Your task to perform on an android device: Search for "corsair k70" on walmart.com, select the first entry, and add it to the cart. Image 0: 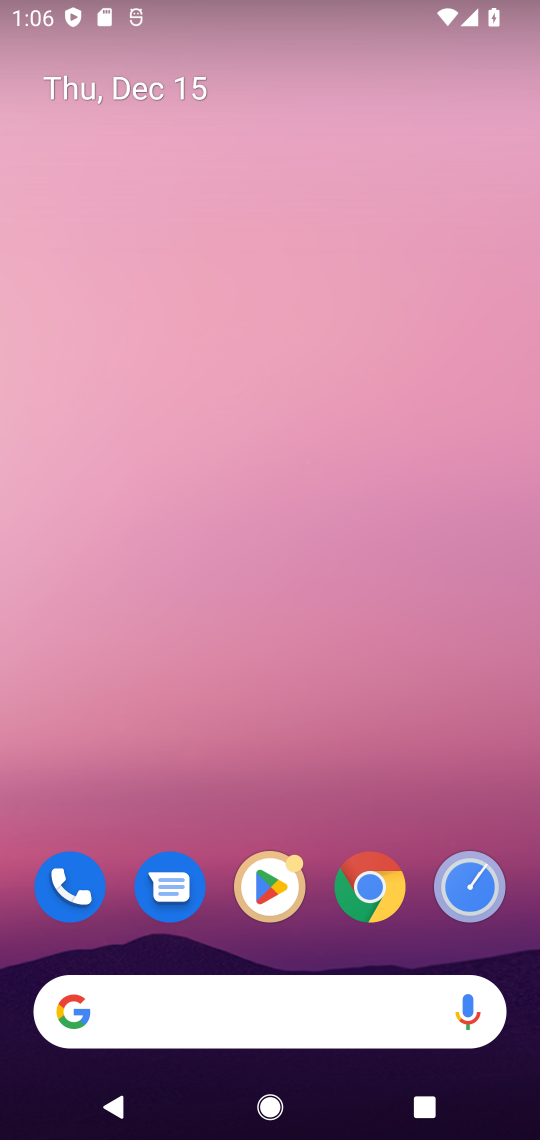
Step 0: click (359, 898)
Your task to perform on an android device: Search for "corsair k70" on walmart.com, select the first entry, and add it to the cart. Image 1: 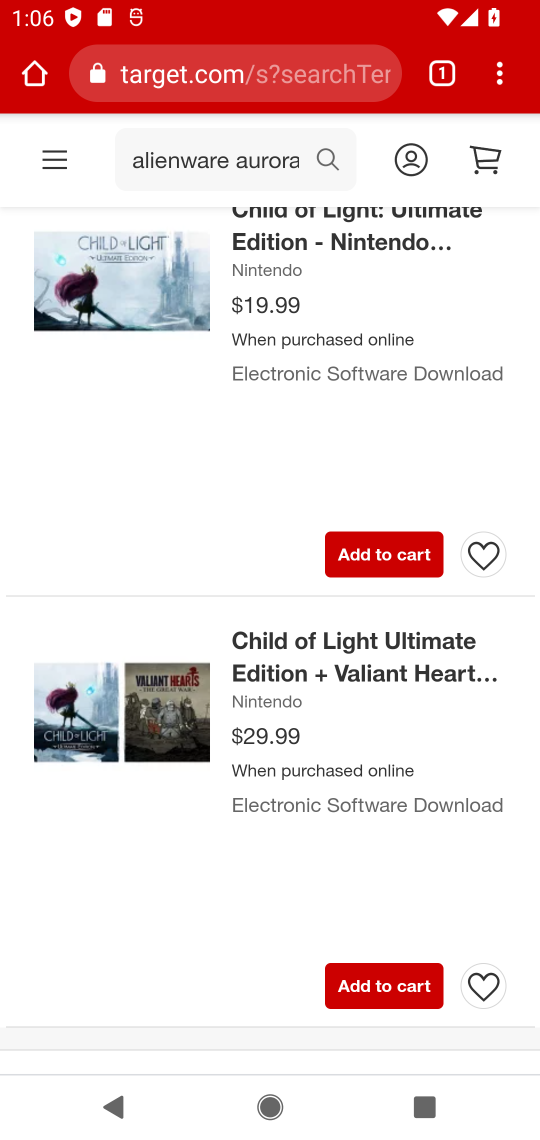
Step 1: click (248, 80)
Your task to perform on an android device: Search for "corsair k70" on walmart.com, select the first entry, and add it to the cart. Image 2: 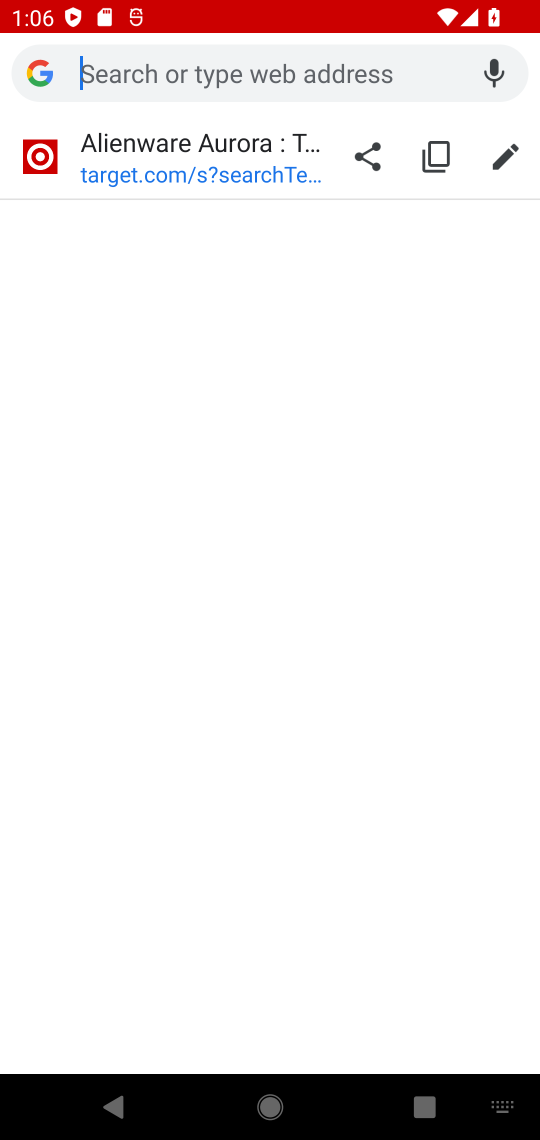
Step 2: type "walmart.com"
Your task to perform on an android device: Search for "corsair k70" on walmart.com, select the first entry, and add it to the cart. Image 3: 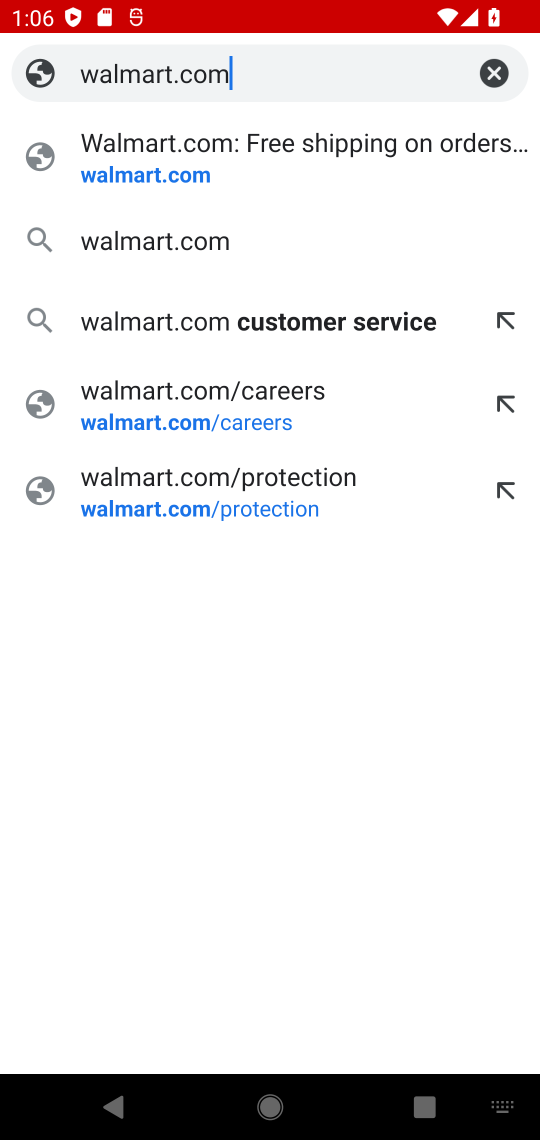
Step 3: click (146, 178)
Your task to perform on an android device: Search for "corsair k70" on walmart.com, select the first entry, and add it to the cart. Image 4: 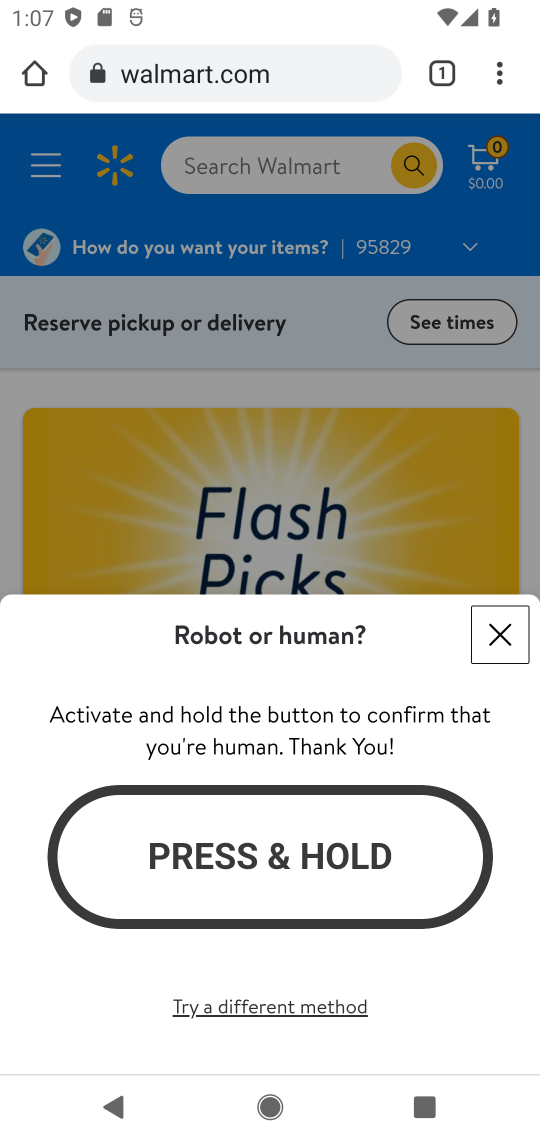
Step 4: click (496, 641)
Your task to perform on an android device: Search for "corsair k70" on walmart.com, select the first entry, and add it to the cart. Image 5: 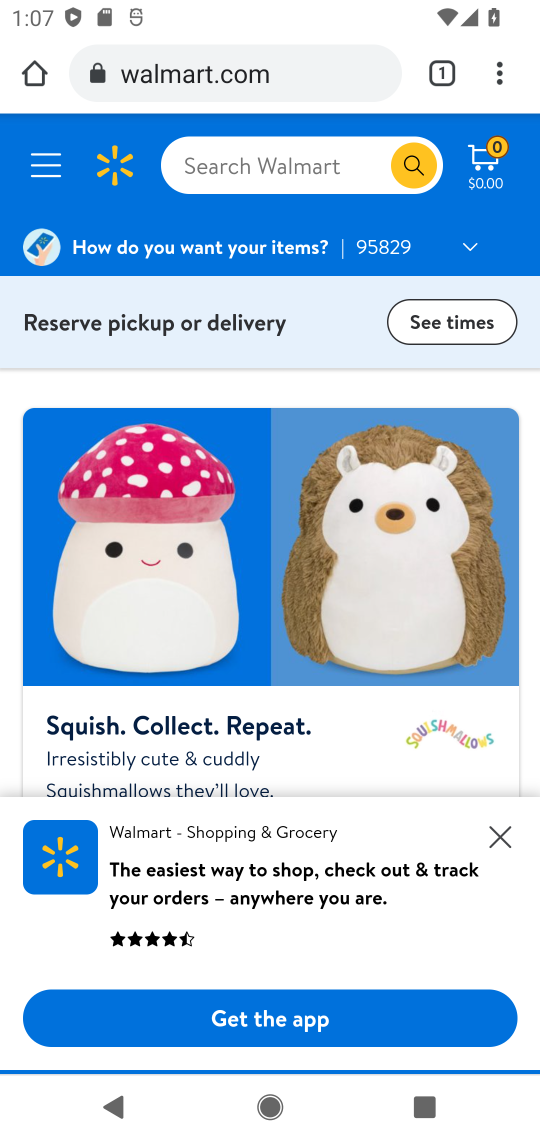
Step 5: click (251, 175)
Your task to perform on an android device: Search for "corsair k70" on walmart.com, select the first entry, and add it to the cart. Image 6: 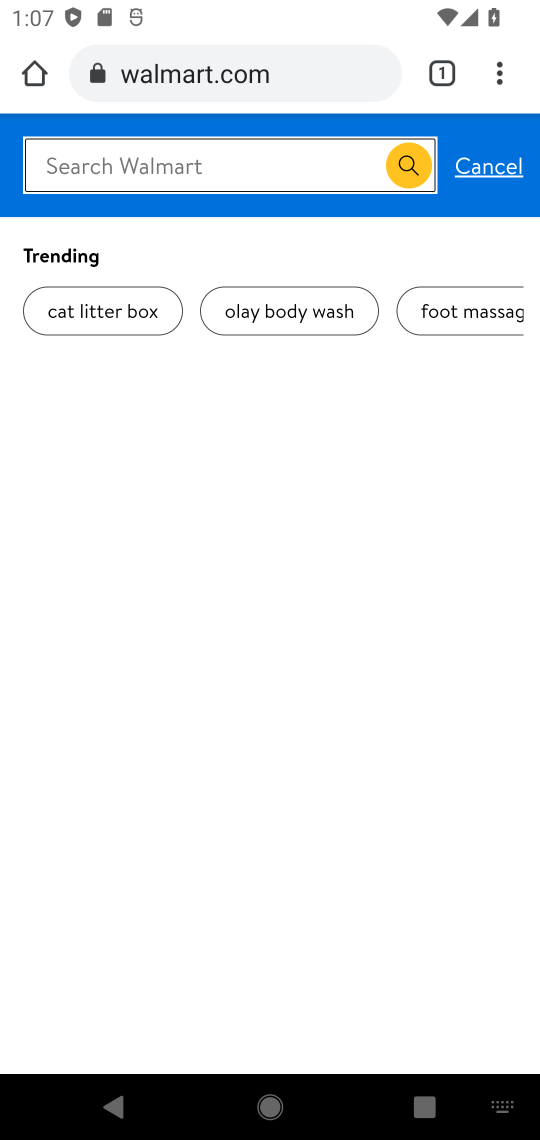
Step 6: type "corsair k70"
Your task to perform on an android device: Search for "corsair k70" on walmart.com, select the first entry, and add it to the cart. Image 7: 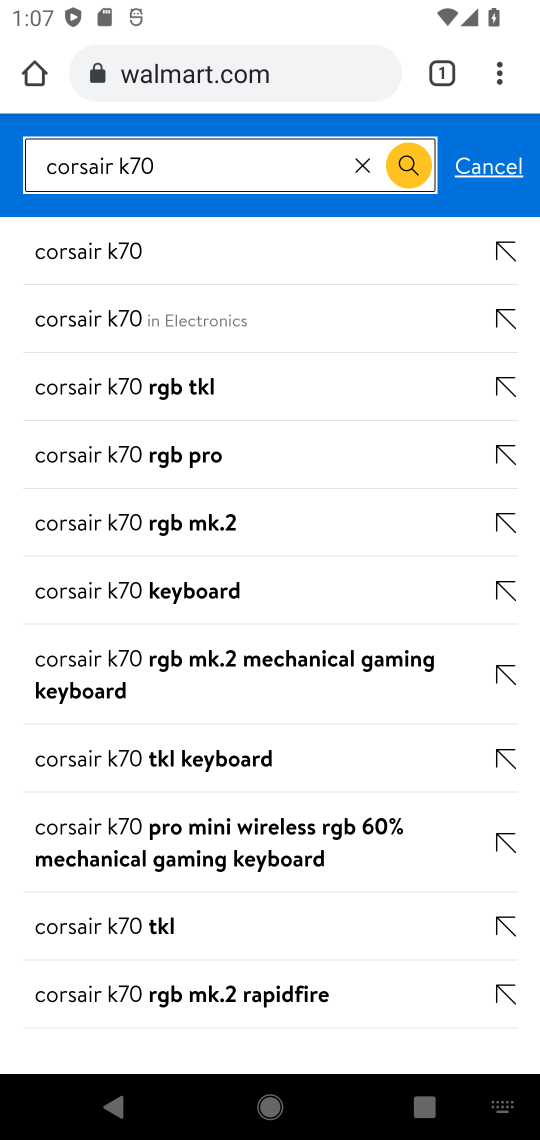
Step 7: click (71, 262)
Your task to perform on an android device: Search for "corsair k70" on walmart.com, select the first entry, and add it to the cart. Image 8: 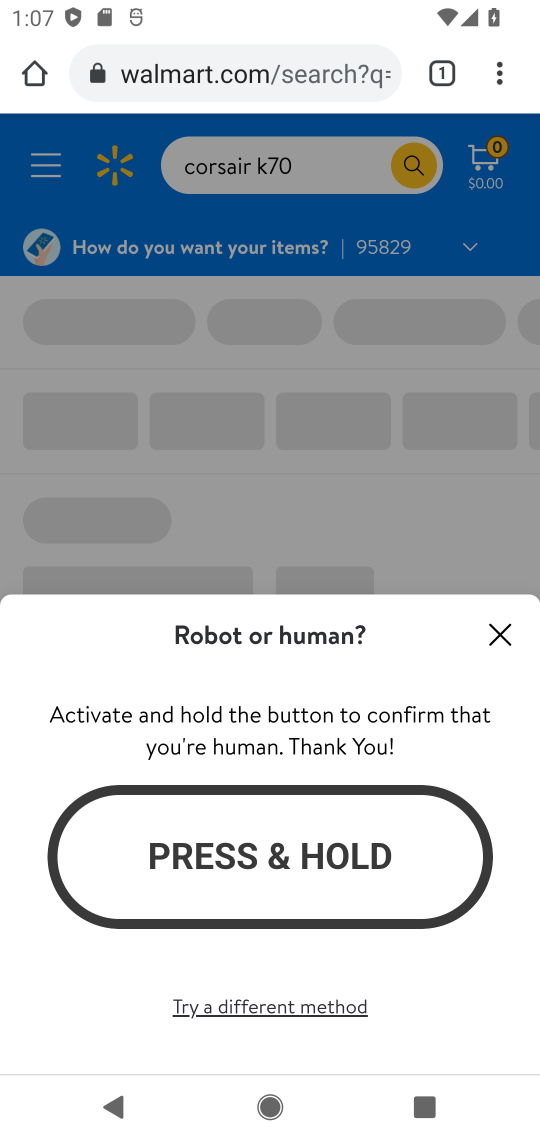
Step 8: click (498, 643)
Your task to perform on an android device: Search for "corsair k70" on walmart.com, select the first entry, and add it to the cart. Image 9: 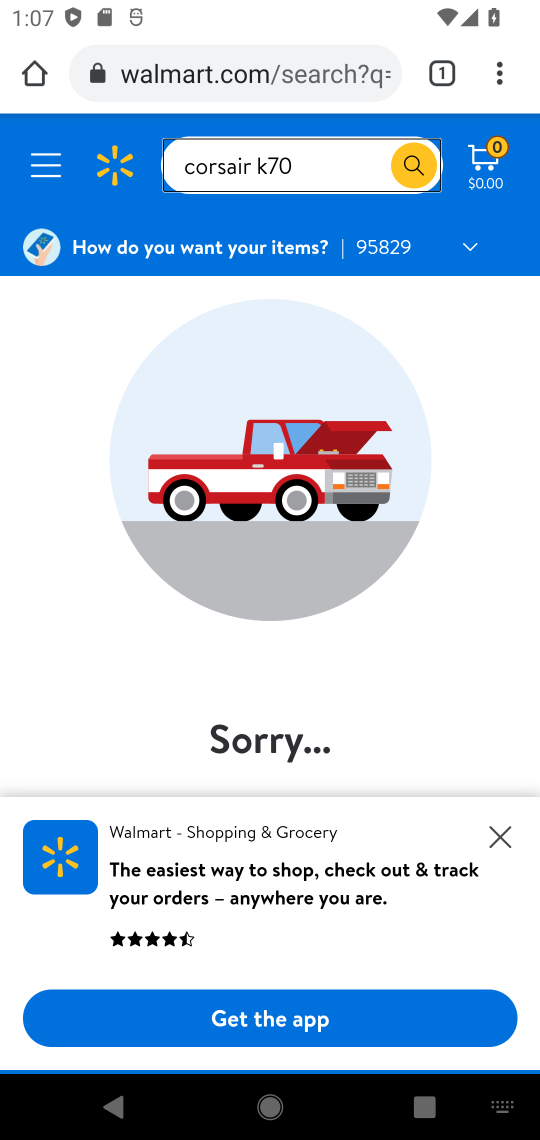
Step 9: click (507, 837)
Your task to perform on an android device: Search for "corsair k70" on walmart.com, select the first entry, and add it to the cart. Image 10: 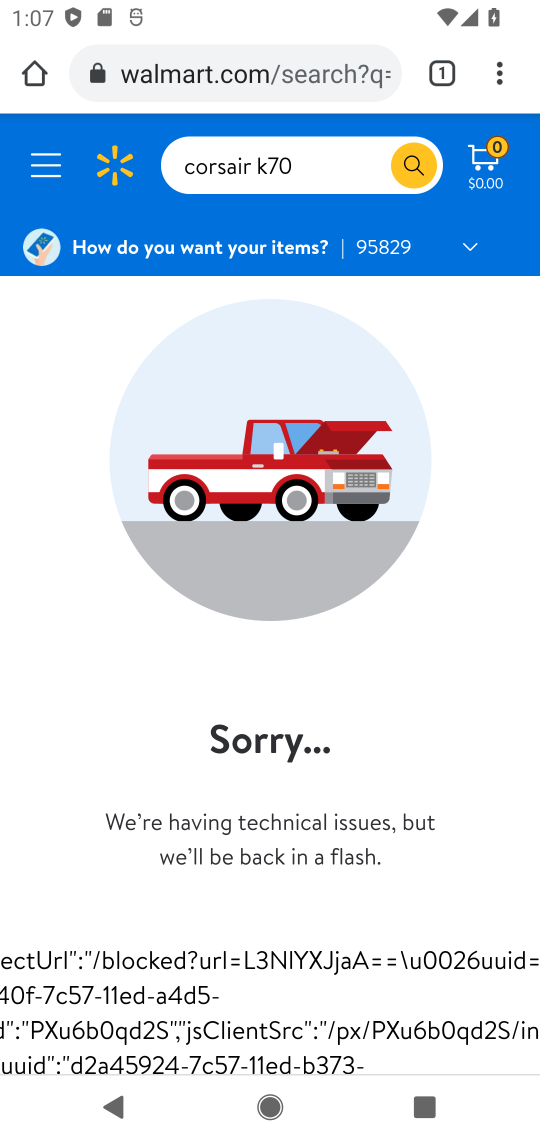
Step 10: task complete